Your task to perform on an android device: stop showing notifications on the lock screen Image 0: 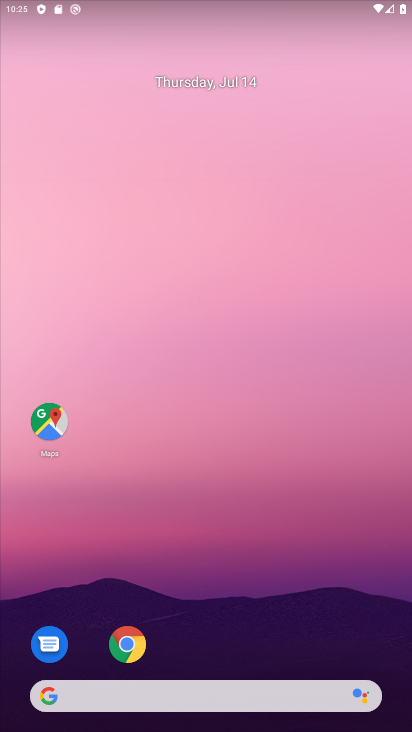
Step 0: drag from (177, 690) to (146, 293)
Your task to perform on an android device: stop showing notifications on the lock screen Image 1: 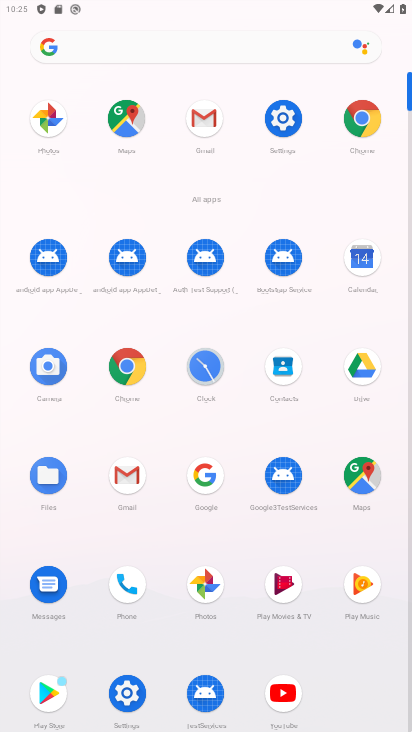
Step 1: click (272, 128)
Your task to perform on an android device: stop showing notifications on the lock screen Image 2: 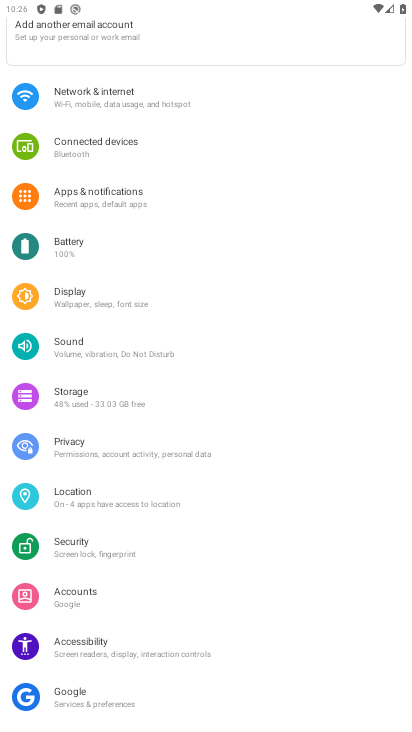
Step 2: click (77, 196)
Your task to perform on an android device: stop showing notifications on the lock screen Image 3: 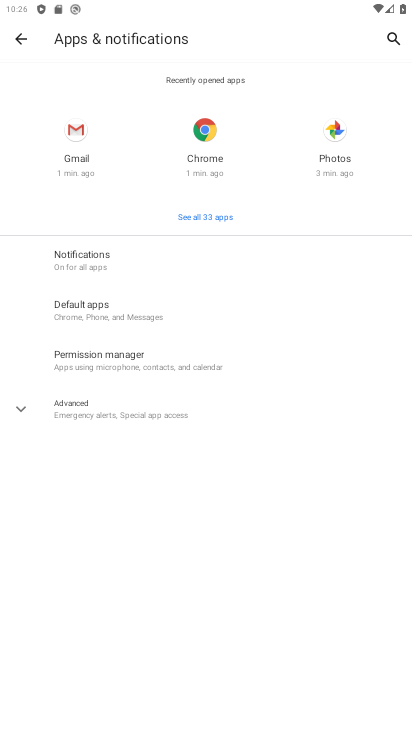
Step 3: click (175, 263)
Your task to perform on an android device: stop showing notifications on the lock screen Image 4: 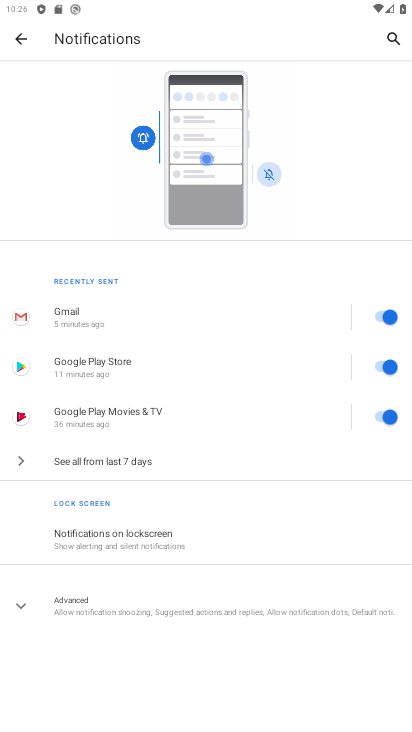
Step 4: click (102, 525)
Your task to perform on an android device: stop showing notifications on the lock screen Image 5: 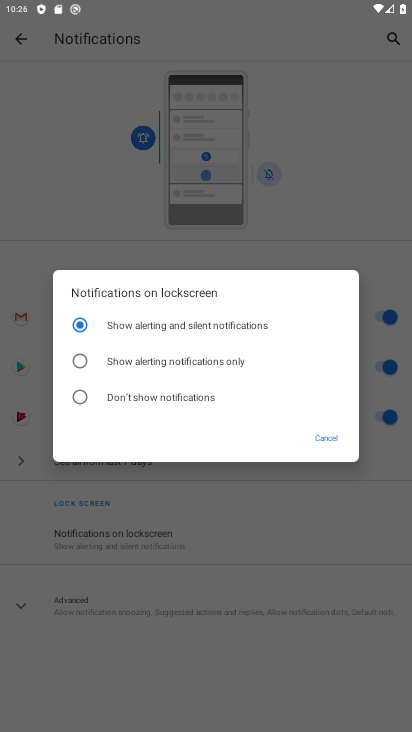
Step 5: click (132, 393)
Your task to perform on an android device: stop showing notifications on the lock screen Image 6: 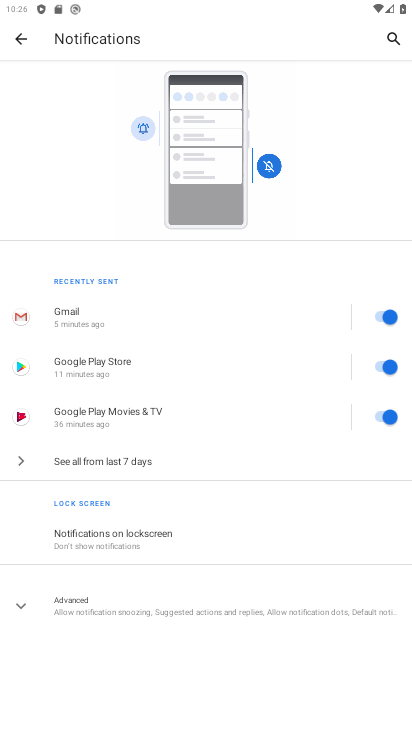
Step 6: task complete